Your task to perform on an android device: Open Youtube and go to the subscriptions tab Image 0: 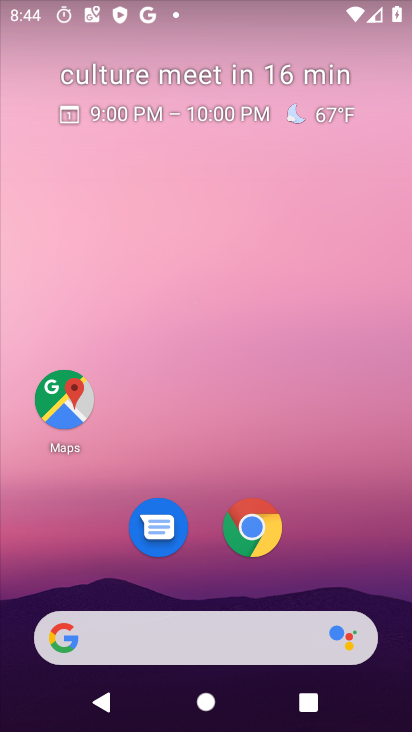
Step 0: drag from (222, 672) to (187, 38)
Your task to perform on an android device: Open Youtube and go to the subscriptions tab Image 1: 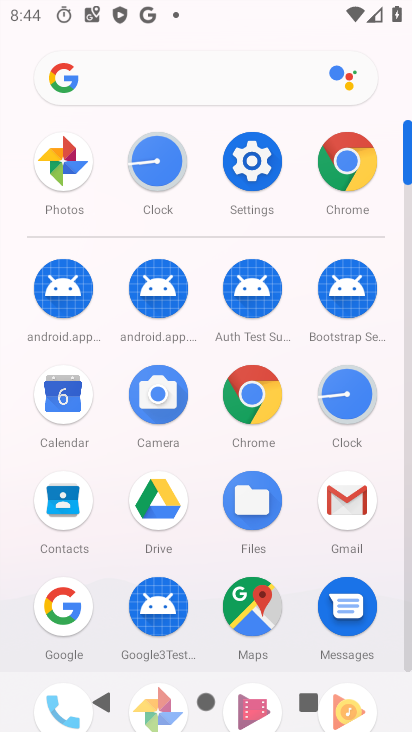
Step 1: drag from (298, 642) to (286, 298)
Your task to perform on an android device: Open Youtube and go to the subscriptions tab Image 2: 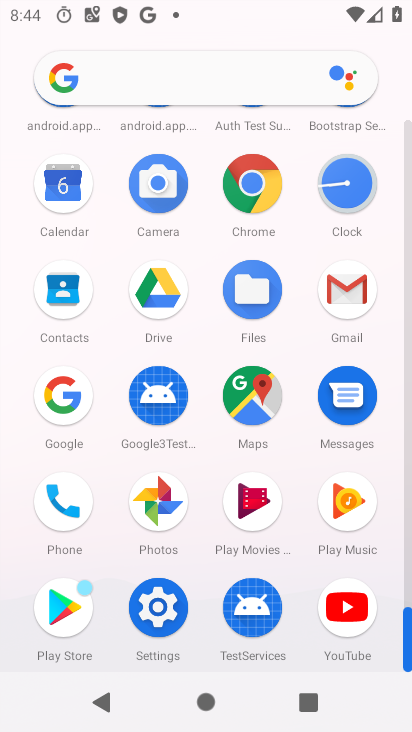
Step 2: click (346, 613)
Your task to perform on an android device: Open Youtube and go to the subscriptions tab Image 3: 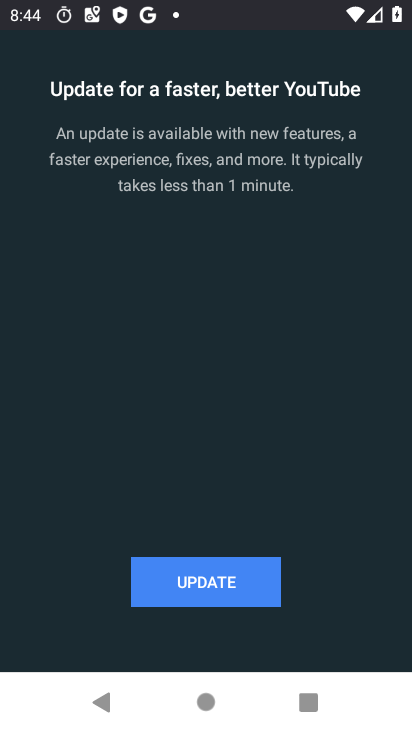
Step 3: click (234, 584)
Your task to perform on an android device: Open Youtube and go to the subscriptions tab Image 4: 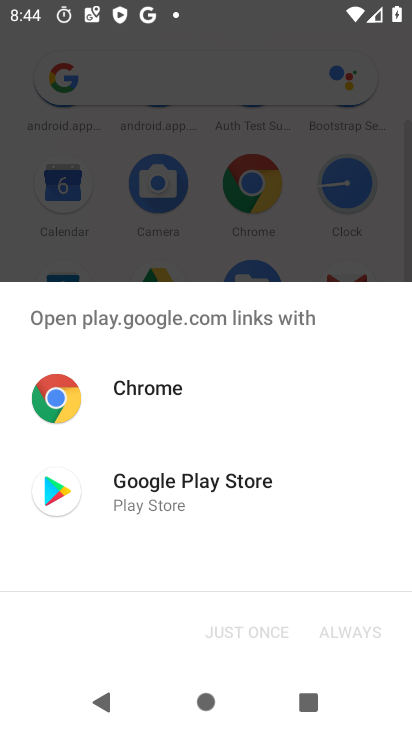
Step 4: click (158, 484)
Your task to perform on an android device: Open Youtube and go to the subscriptions tab Image 5: 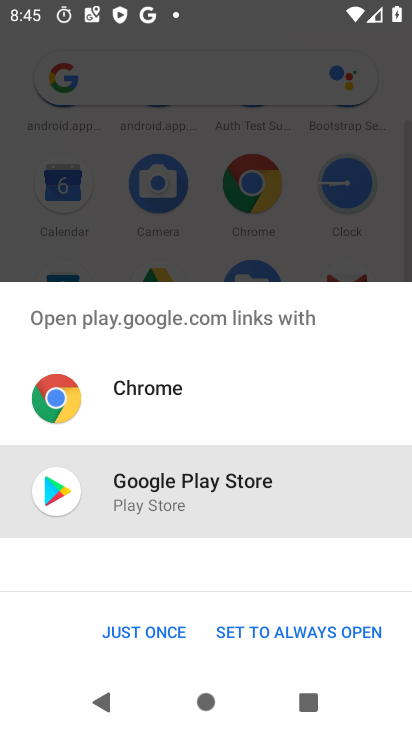
Step 5: click (137, 627)
Your task to perform on an android device: Open Youtube and go to the subscriptions tab Image 6: 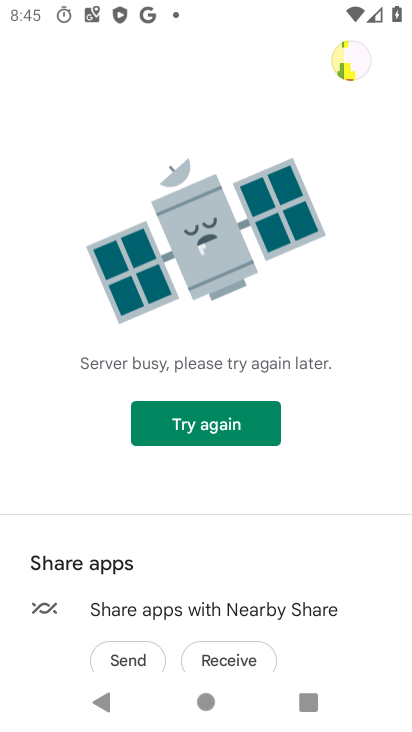
Step 6: task complete